Your task to perform on an android device: What's on my calendar tomorrow? Image 0: 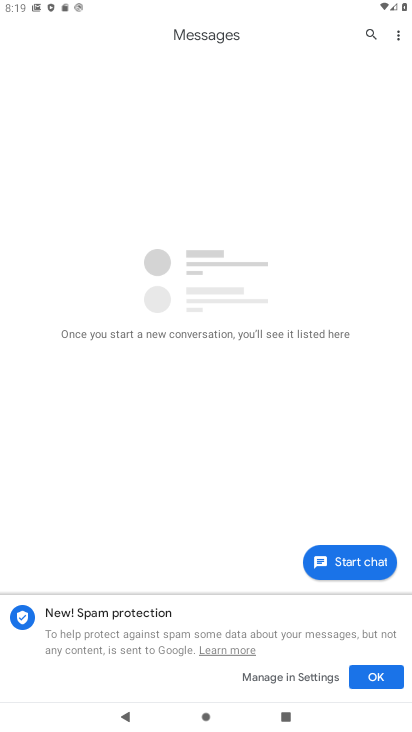
Step 0: press home button
Your task to perform on an android device: What's on my calendar tomorrow? Image 1: 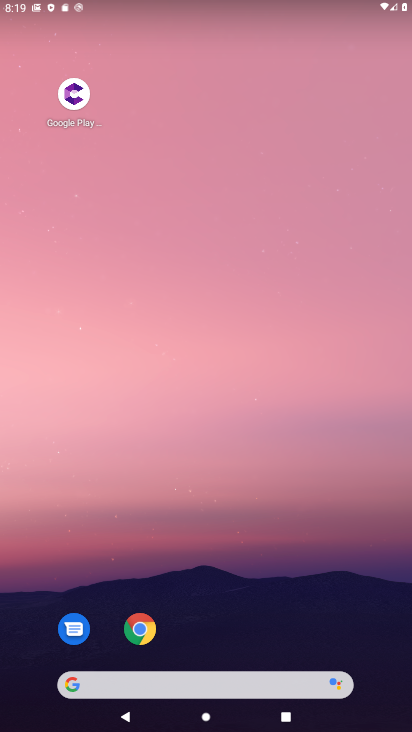
Step 1: drag from (247, 636) to (336, 39)
Your task to perform on an android device: What's on my calendar tomorrow? Image 2: 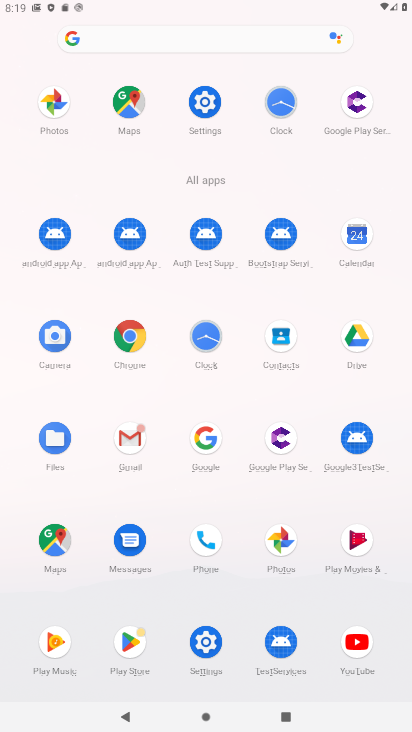
Step 2: click (360, 231)
Your task to perform on an android device: What's on my calendar tomorrow? Image 3: 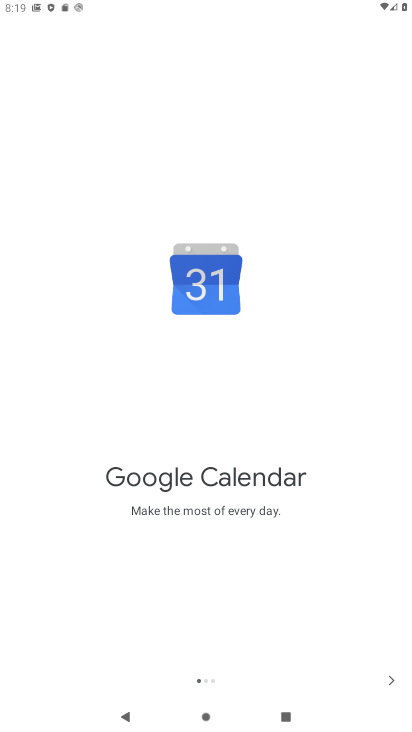
Step 3: click (381, 673)
Your task to perform on an android device: What's on my calendar tomorrow? Image 4: 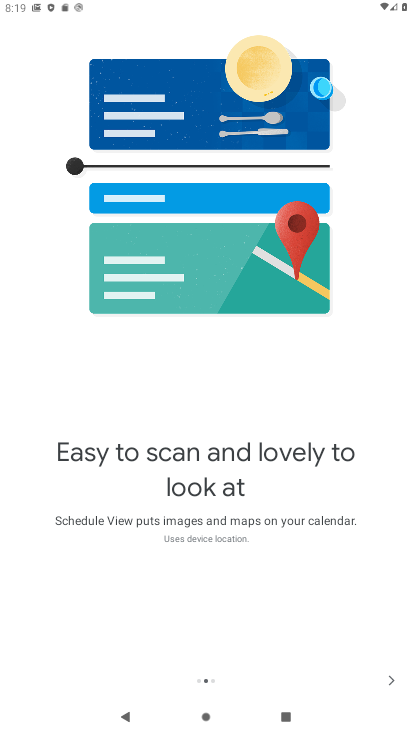
Step 4: click (389, 683)
Your task to perform on an android device: What's on my calendar tomorrow? Image 5: 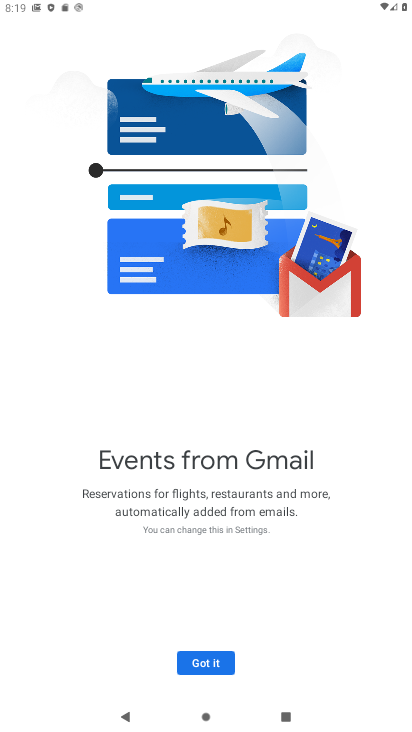
Step 5: click (222, 671)
Your task to perform on an android device: What's on my calendar tomorrow? Image 6: 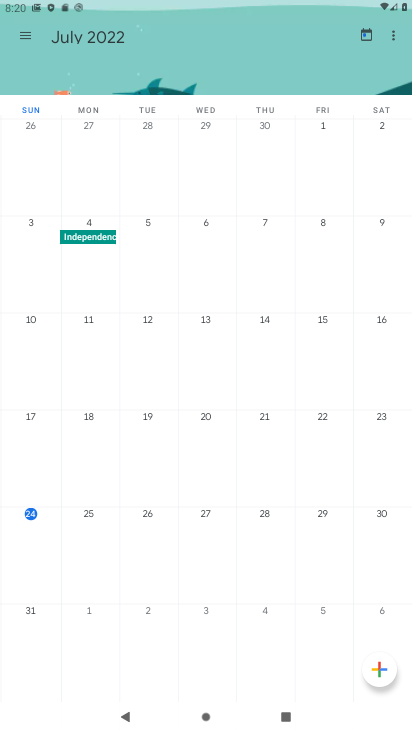
Step 6: click (22, 30)
Your task to perform on an android device: What's on my calendar tomorrow? Image 7: 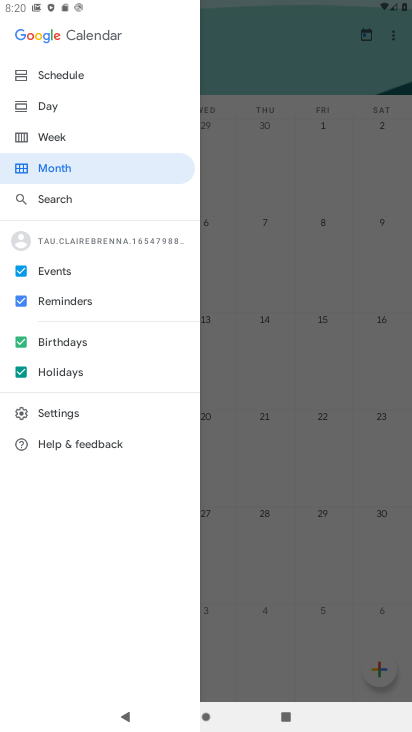
Step 7: click (64, 109)
Your task to perform on an android device: What's on my calendar tomorrow? Image 8: 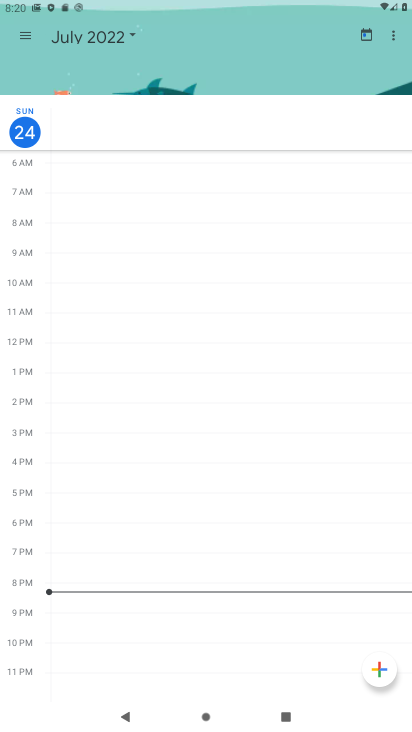
Step 8: drag from (40, 612) to (124, 206)
Your task to perform on an android device: What's on my calendar tomorrow? Image 9: 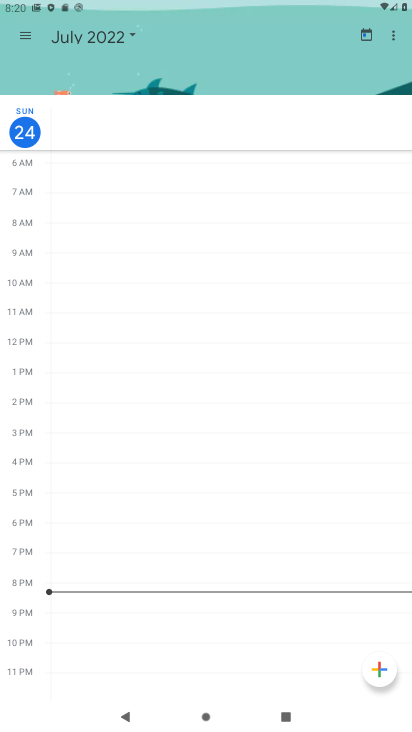
Step 9: drag from (123, 620) to (202, 18)
Your task to perform on an android device: What's on my calendar tomorrow? Image 10: 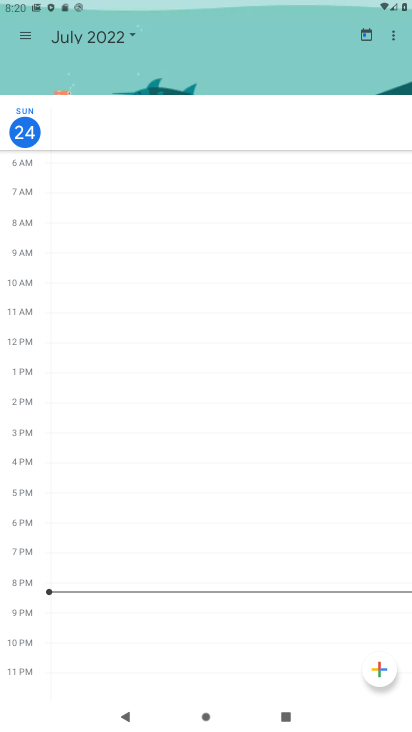
Step 10: click (22, 125)
Your task to perform on an android device: What's on my calendar tomorrow? Image 11: 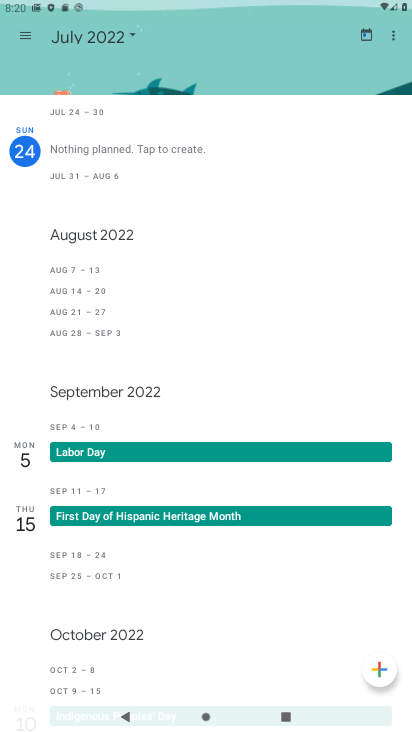
Step 11: task complete